Your task to perform on an android device: toggle airplane mode Image 0: 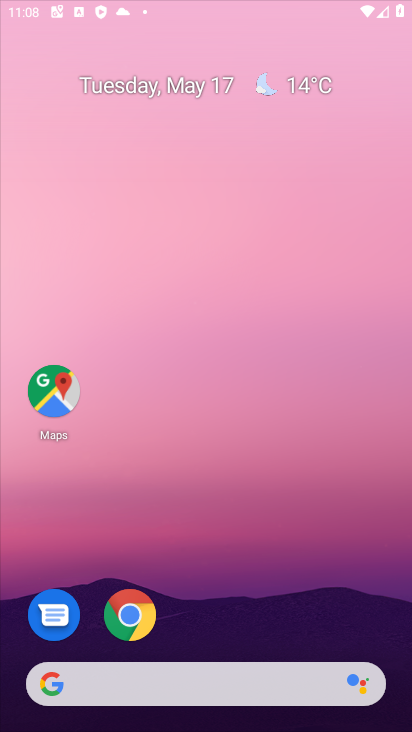
Step 0: drag from (342, 500) to (258, 113)
Your task to perform on an android device: toggle airplane mode Image 1: 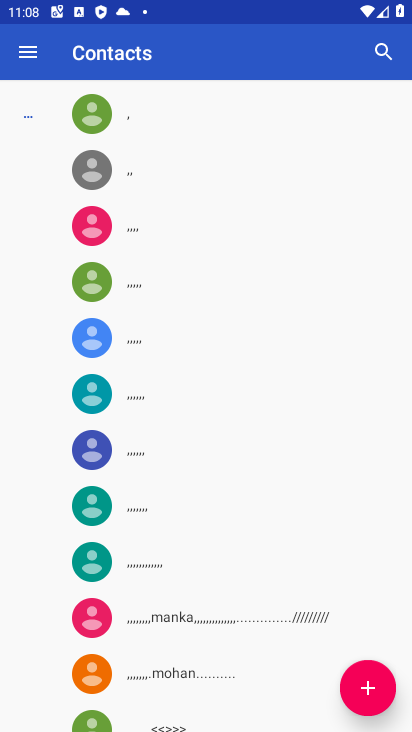
Step 1: press home button
Your task to perform on an android device: toggle airplane mode Image 2: 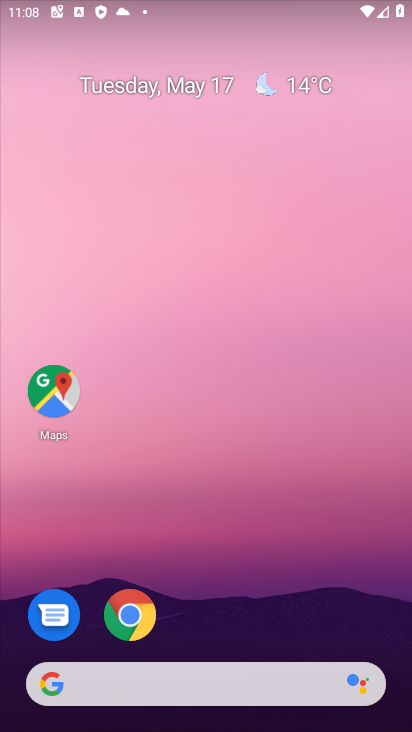
Step 2: drag from (369, 624) to (291, 55)
Your task to perform on an android device: toggle airplane mode Image 3: 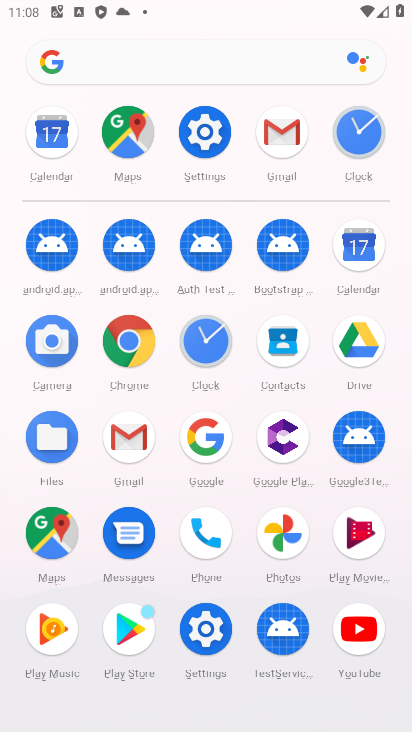
Step 3: click (207, 632)
Your task to perform on an android device: toggle airplane mode Image 4: 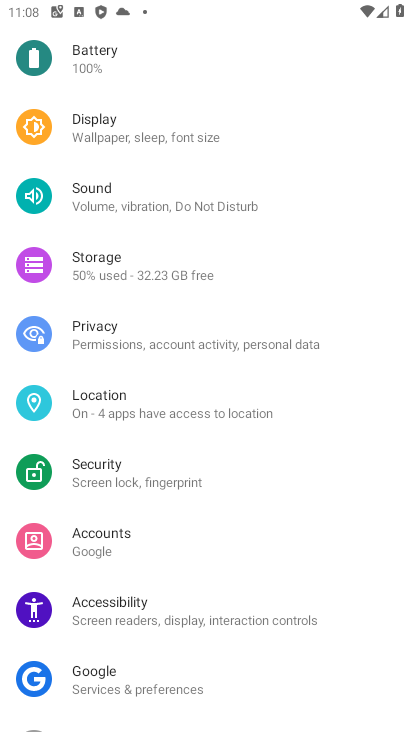
Step 4: drag from (335, 131) to (326, 486)
Your task to perform on an android device: toggle airplane mode Image 5: 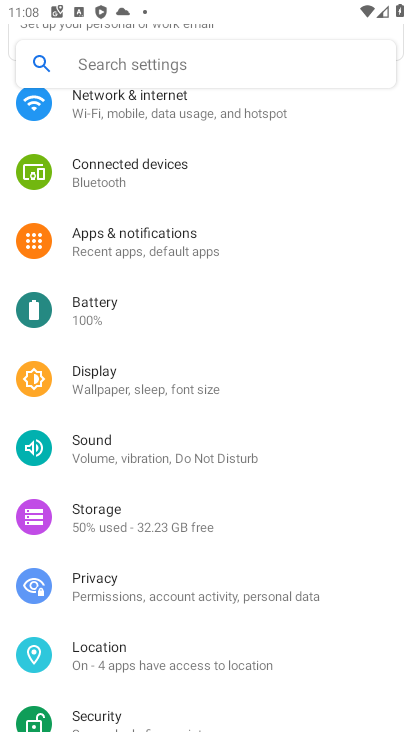
Step 5: drag from (307, 252) to (299, 437)
Your task to perform on an android device: toggle airplane mode Image 6: 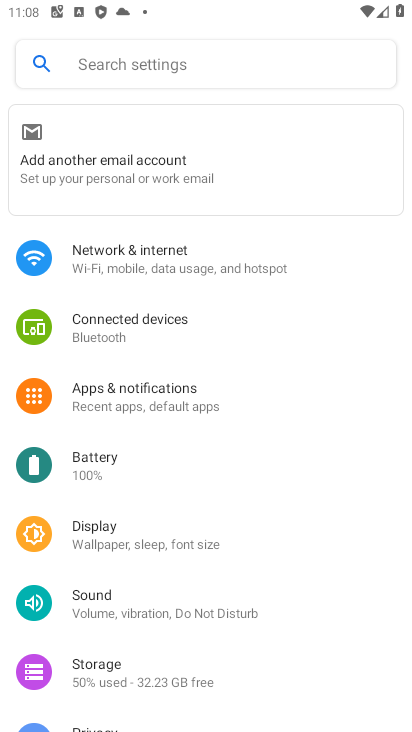
Step 6: click (142, 265)
Your task to perform on an android device: toggle airplane mode Image 7: 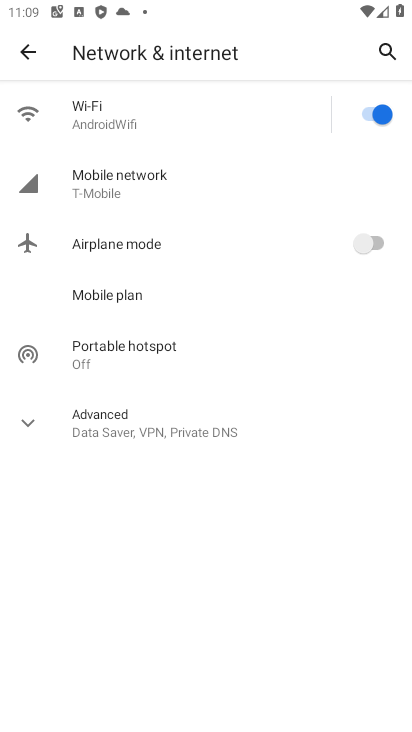
Step 7: click (376, 242)
Your task to perform on an android device: toggle airplane mode Image 8: 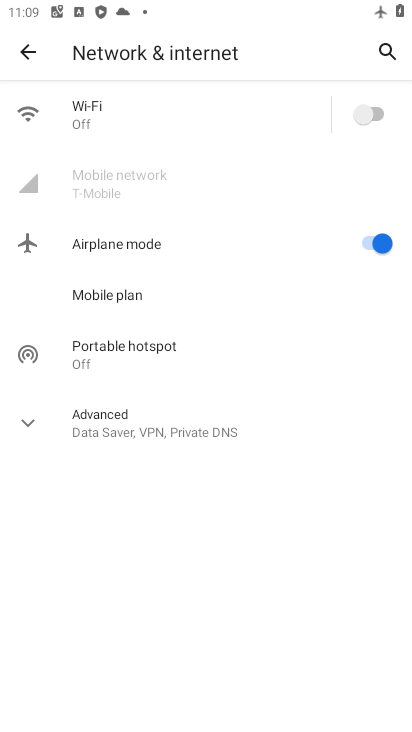
Step 8: task complete